Your task to perform on an android device: move a message to another label in the gmail app Image 0: 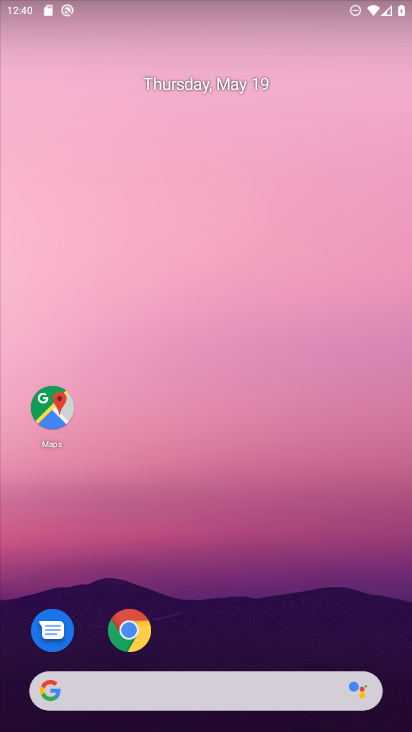
Step 0: drag from (322, 62) to (225, 0)
Your task to perform on an android device: move a message to another label in the gmail app Image 1: 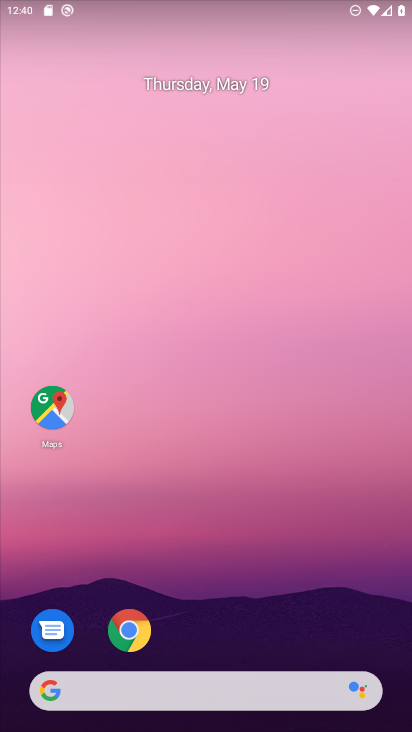
Step 1: drag from (193, 639) to (224, 26)
Your task to perform on an android device: move a message to another label in the gmail app Image 2: 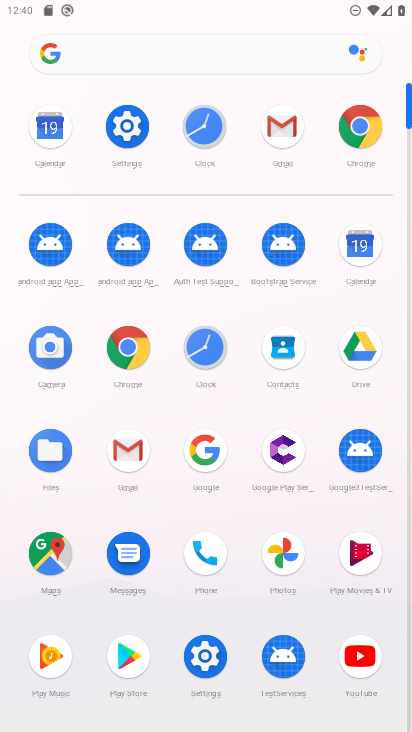
Step 2: click (126, 440)
Your task to perform on an android device: move a message to another label in the gmail app Image 3: 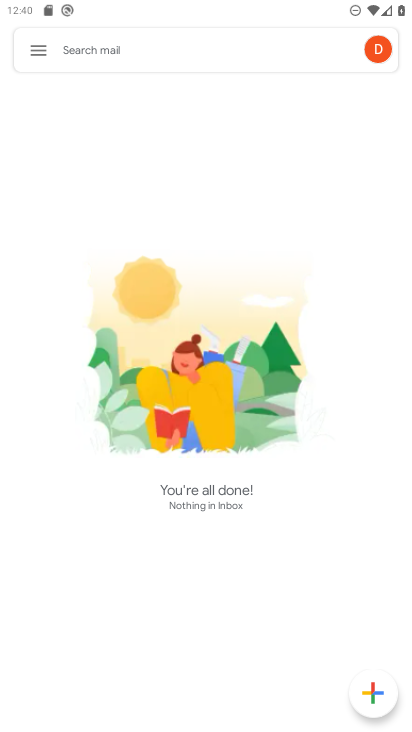
Step 3: click (43, 52)
Your task to perform on an android device: move a message to another label in the gmail app Image 4: 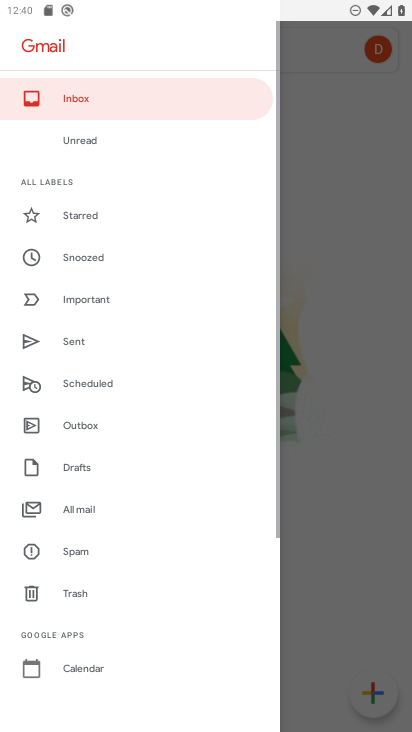
Step 4: drag from (134, 628) to (200, 137)
Your task to perform on an android device: move a message to another label in the gmail app Image 5: 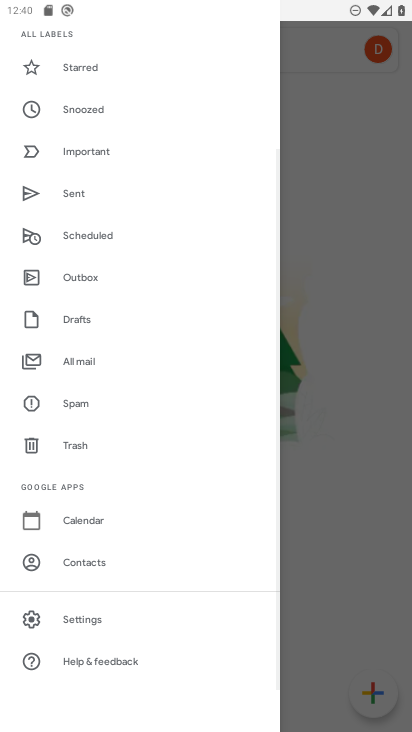
Step 5: drag from (142, 163) to (222, 698)
Your task to perform on an android device: move a message to another label in the gmail app Image 6: 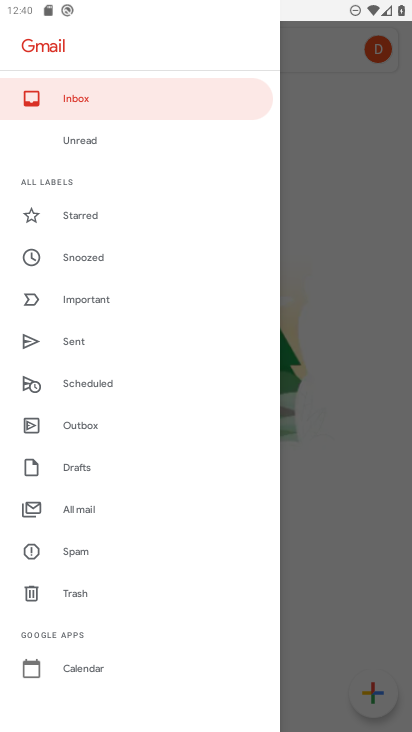
Step 6: click (91, 98)
Your task to perform on an android device: move a message to another label in the gmail app Image 7: 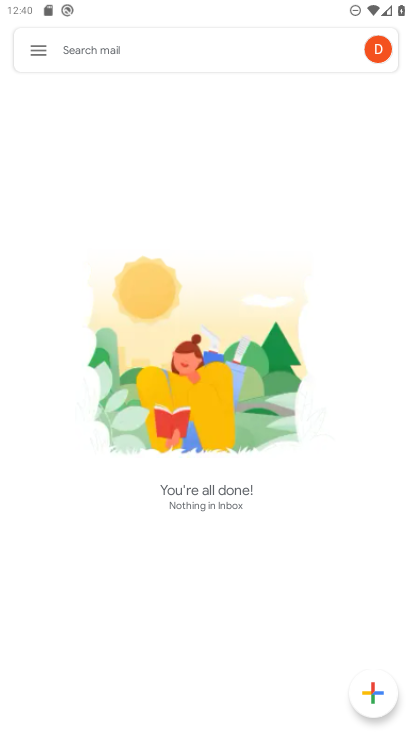
Step 7: task complete